Your task to perform on an android device: Open battery settings Image 0: 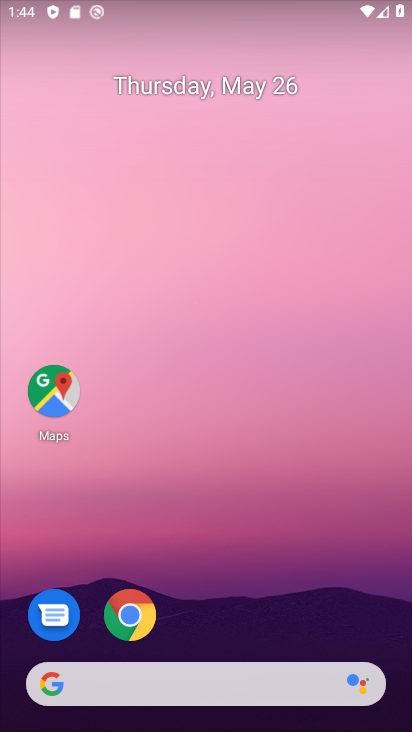
Step 0: drag from (219, 308) to (203, 153)
Your task to perform on an android device: Open battery settings Image 1: 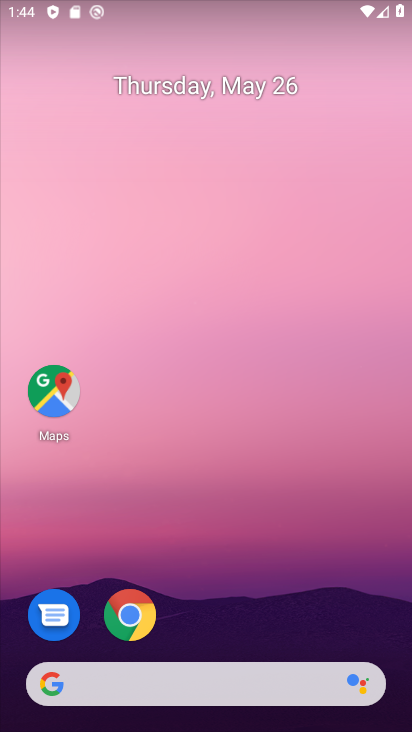
Step 1: drag from (211, 639) to (190, 4)
Your task to perform on an android device: Open battery settings Image 2: 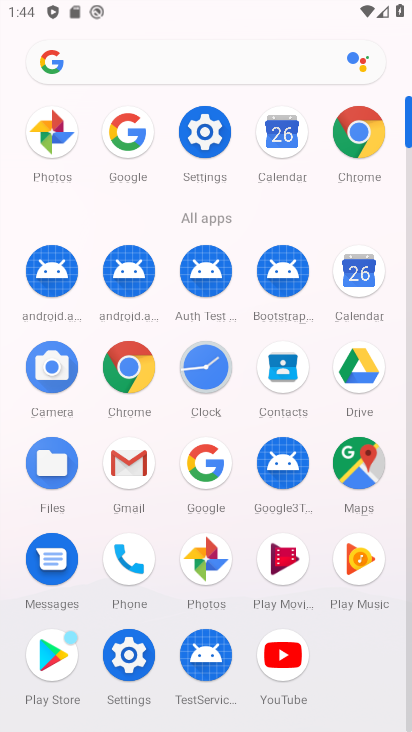
Step 2: click (201, 123)
Your task to perform on an android device: Open battery settings Image 3: 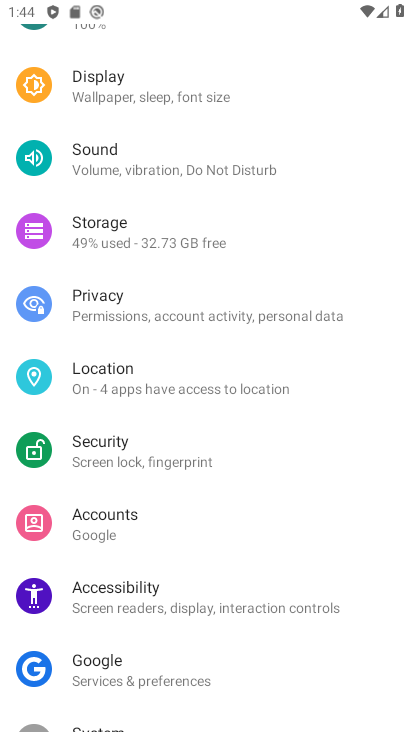
Step 3: drag from (125, 98) to (173, 527)
Your task to perform on an android device: Open battery settings Image 4: 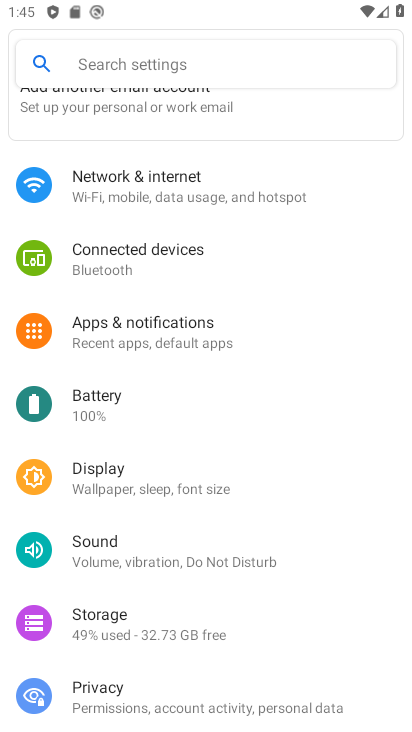
Step 4: click (120, 398)
Your task to perform on an android device: Open battery settings Image 5: 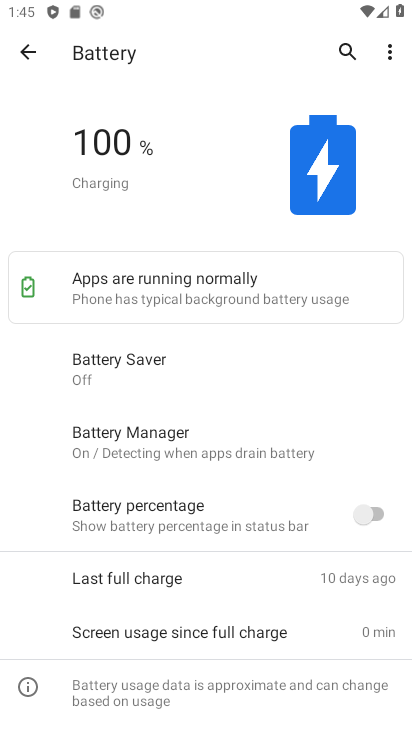
Step 5: task complete